Your task to perform on an android device: turn off notifications in google photos Image 0: 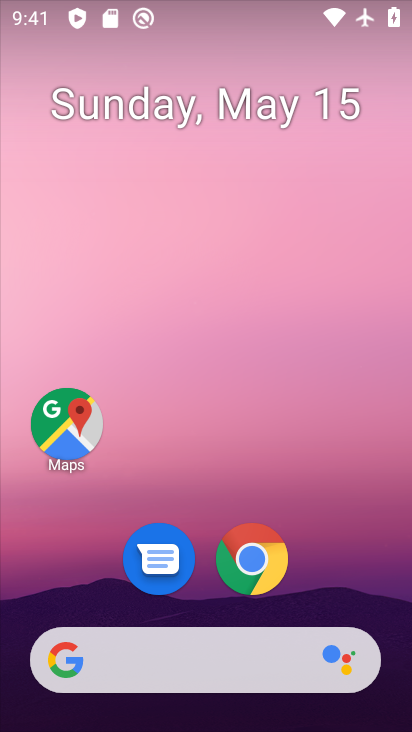
Step 0: drag from (209, 294) to (160, 96)
Your task to perform on an android device: turn off notifications in google photos Image 1: 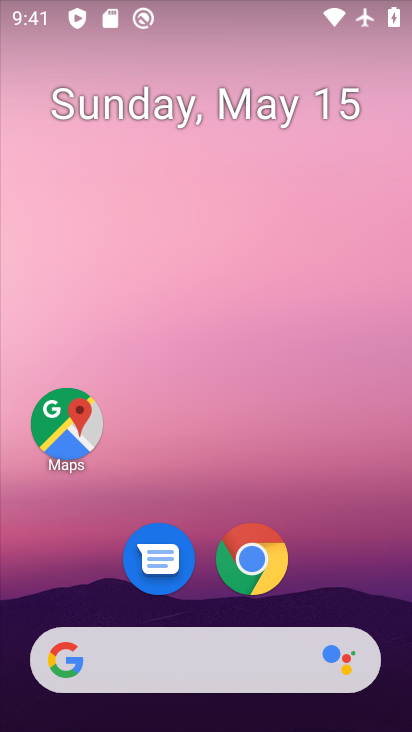
Step 1: drag from (320, 541) to (149, 0)
Your task to perform on an android device: turn off notifications in google photos Image 2: 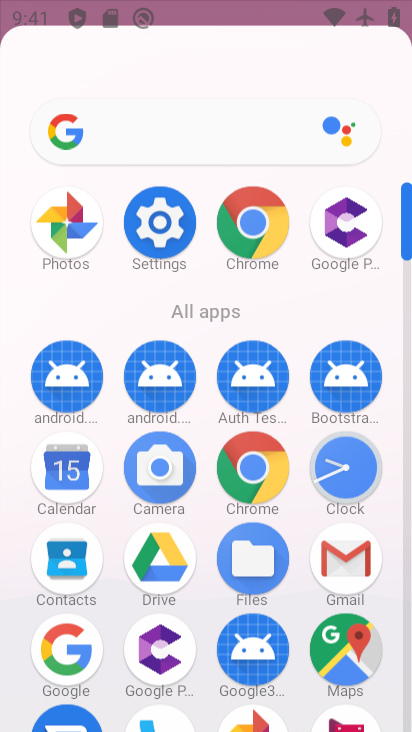
Step 2: drag from (327, 593) to (221, 0)
Your task to perform on an android device: turn off notifications in google photos Image 3: 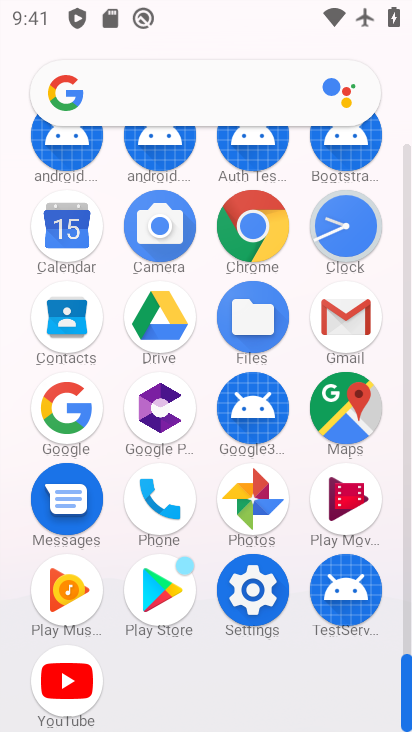
Step 3: click (256, 488)
Your task to perform on an android device: turn off notifications in google photos Image 4: 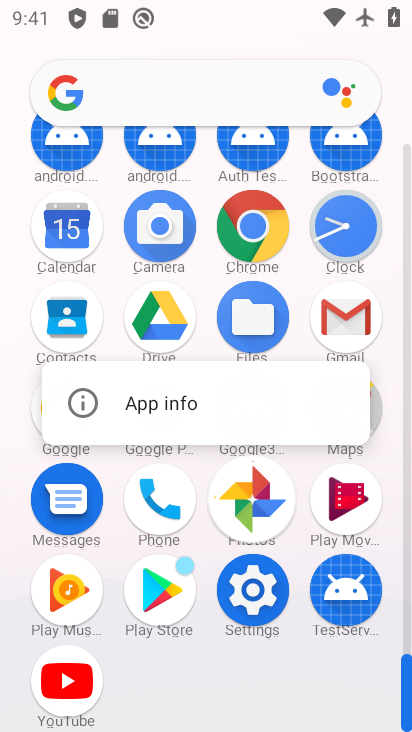
Step 4: click (250, 494)
Your task to perform on an android device: turn off notifications in google photos Image 5: 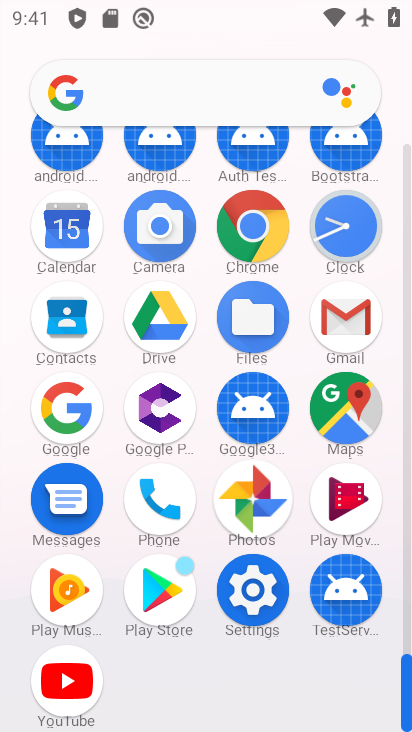
Step 5: click (251, 496)
Your task to perform on an android device: turn off notifications in google photos Image 6: 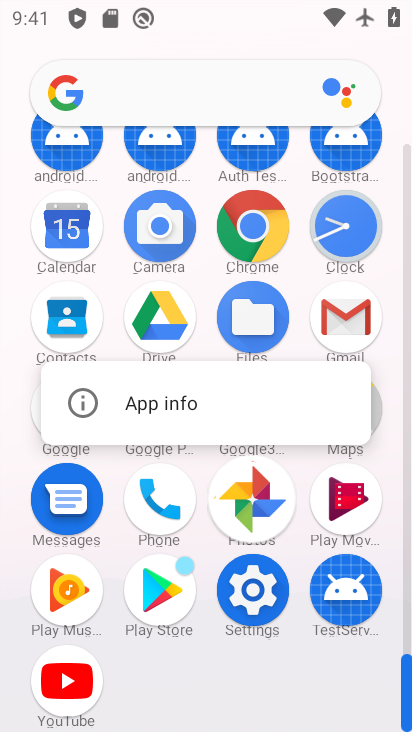
Step 6: click (251, 496)
Your task to perform on an android device: turn off notifications in google photos Image 7: 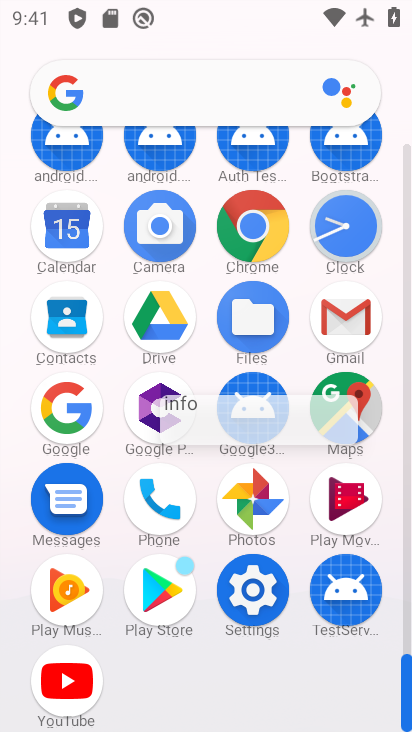
Step 7: click (252, 495)
Your task to perform on an android device: turn off notifications in google photos Image 8: 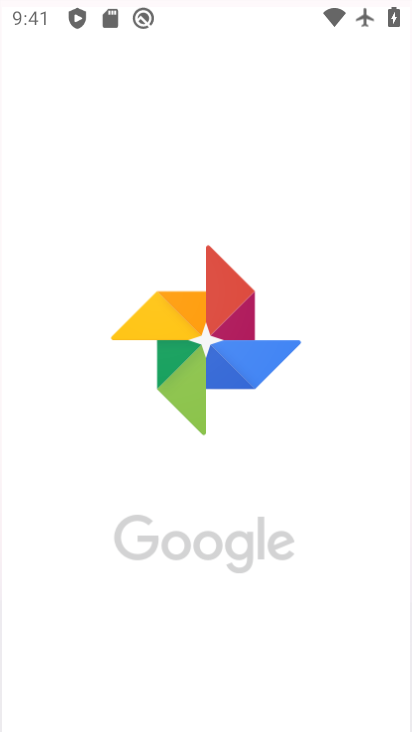
Step 8: click (252, 495)
Your task to perform on an android device: turn off notifications in google photos Image 9: 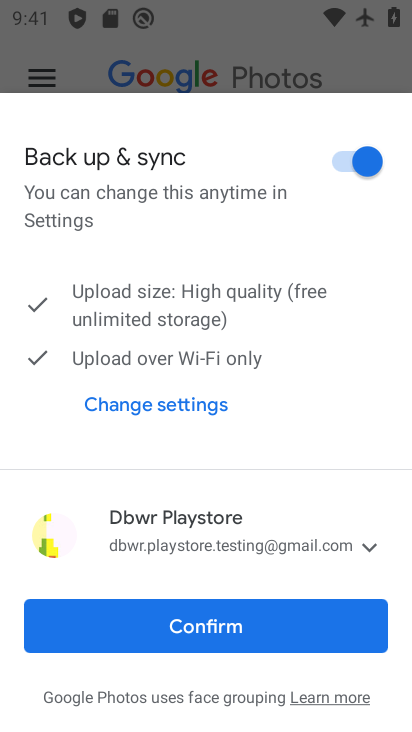
Step 9: click (211, 632)
Your task to perform on an android device: turn off notifications in google photos Image 10: 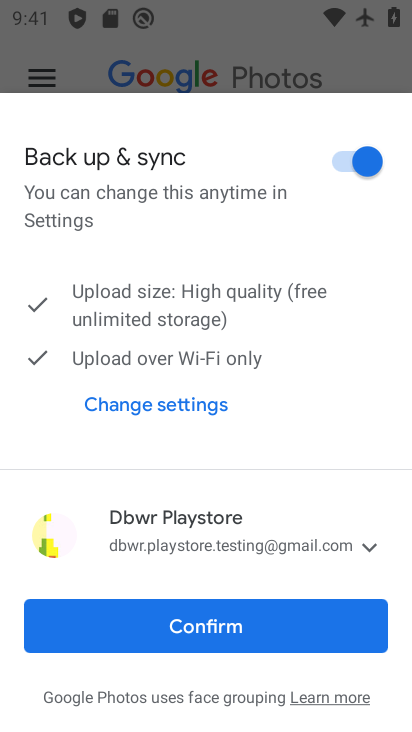
Step 10: click (203, 636)
Your task to perform on an android device: turn off notifications in google photos Image 11: 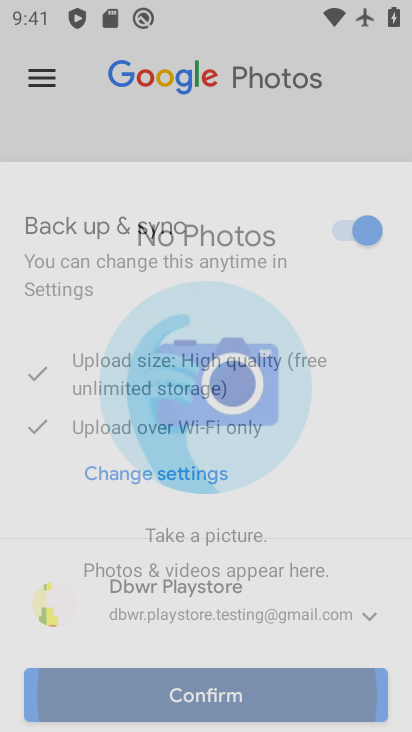
Step 11: click (207, 635)
Your task to perform on an android device: turn off notifications in google photos Image 12: 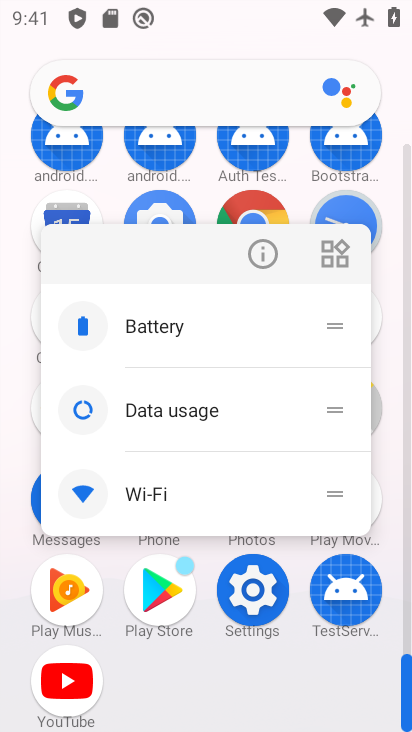
Step 12: click (397, 358)
Your task to perform on an android device: turn off notifications in google photos Image 13: 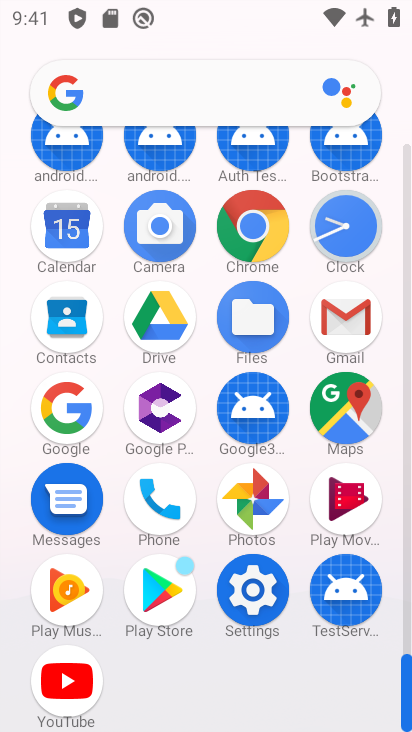
Step 13: click (395, 357)
Your task to perform on an android device: turn off notifications in google photos Image 14: 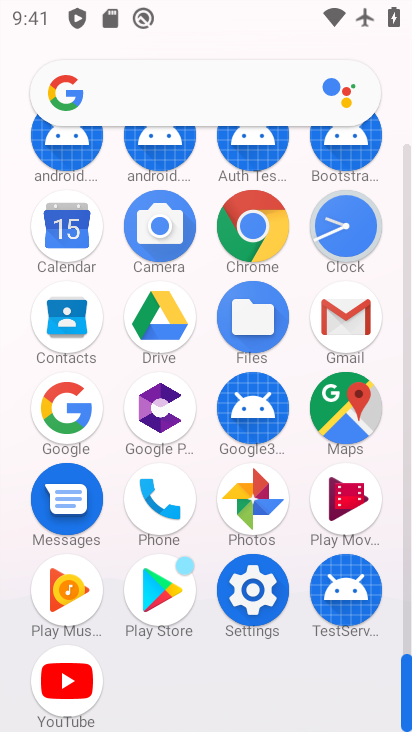
Step 14: click (396, 356)
Your task to perform on an android device: turn off notifications in google photos Image 15: 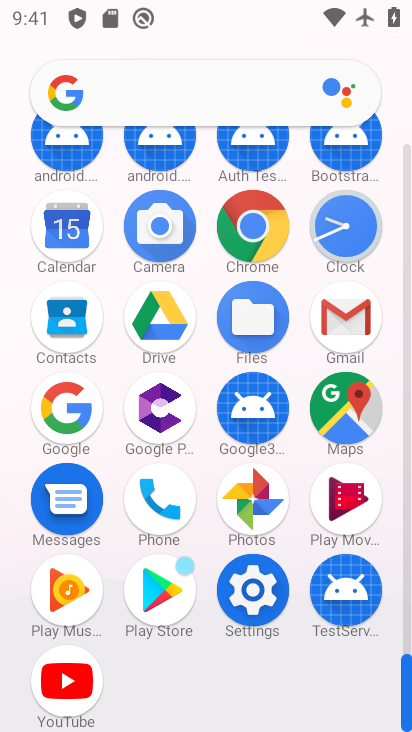
Step 15: click (233, 481)
Your task to perform on an android device: turn off notifications in google photos Image 16: 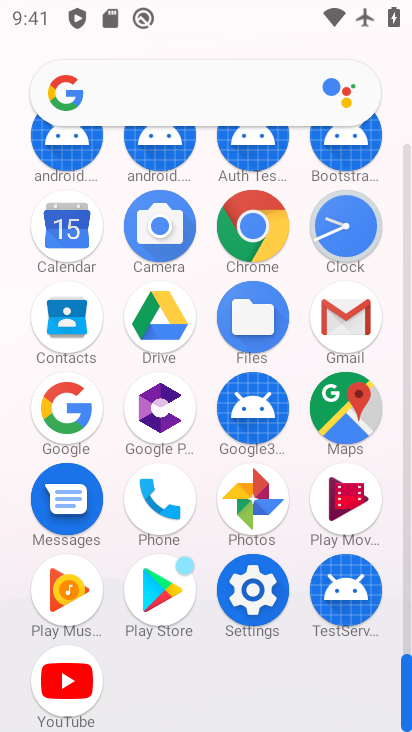
Step 16: click (242, 502)
Your task to perform on an android device: turn off notifications in google photos Image 17: 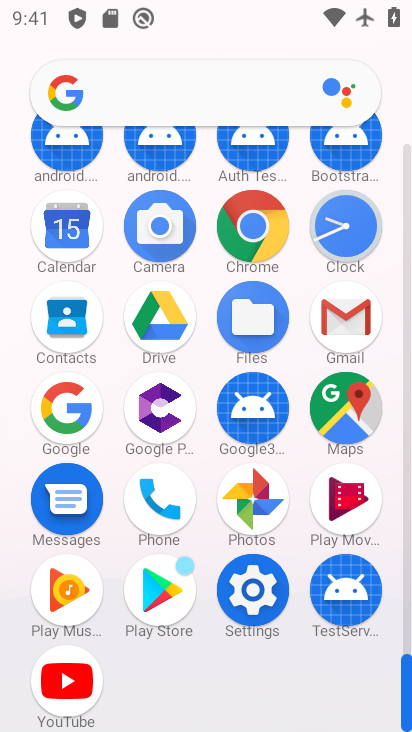
Step 17: click (243, 502)
Your task to perform on an android device: turn off notifications in google photos Image 18: 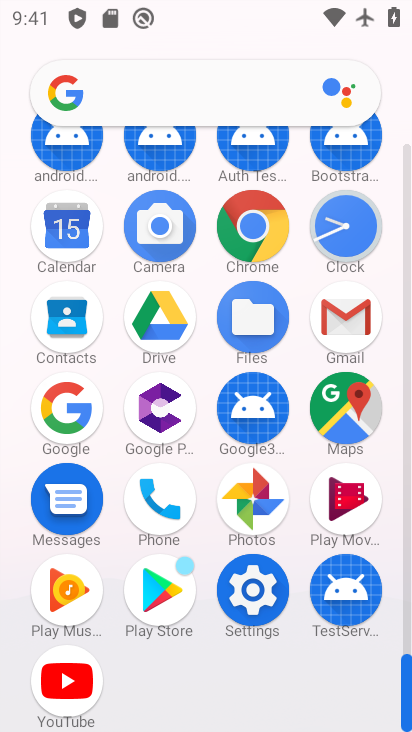
Step 18: click (258, 502)
Your task to perform on an android device: turn off notifications in google photos Image 19: 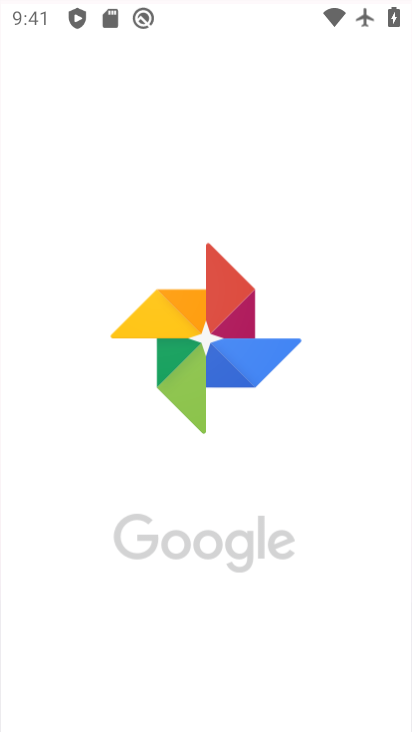
Step 19: click (260, 501)
Your task to perform on an android device: turn off notifications in google photos Image 20: 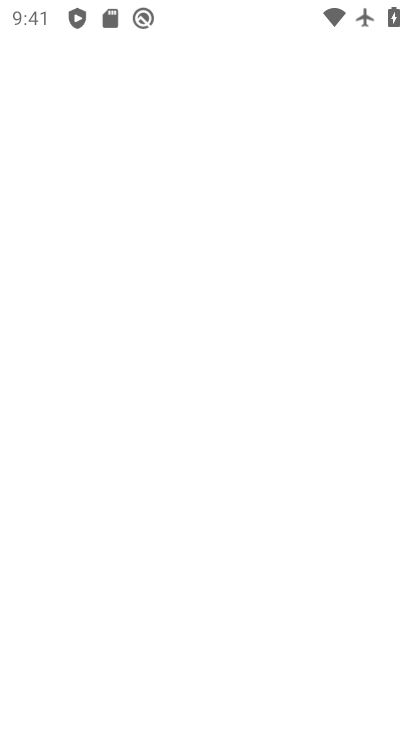
Step 20: click (260, 501)
Your task to perform on an android device: turn off notifications in google photos Image 21: 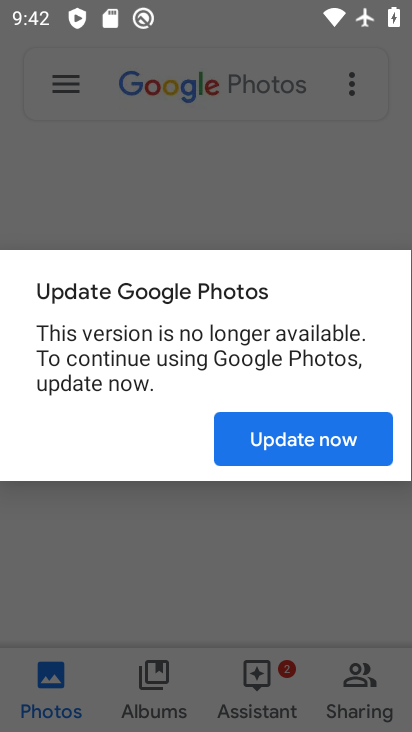
Step 21: click (300, 448)
Your task to perform on an android device: turn off notifications in google photos Image 22: 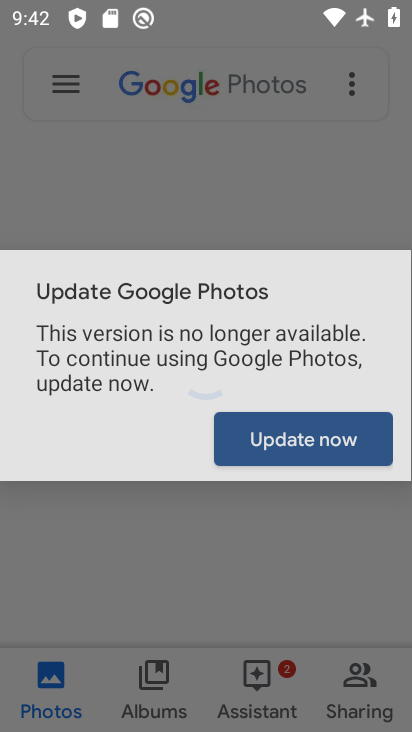
Step 22: click (324, 411)
Your task to perform on an android device: turn off notifications in google photos Image 23: 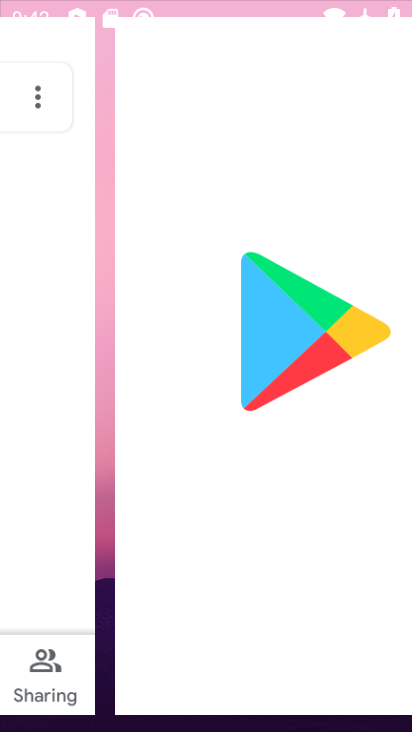
Step 23: click (324, 411)
Your task to perform on an android device: turn off notifications in google photos Image 24: 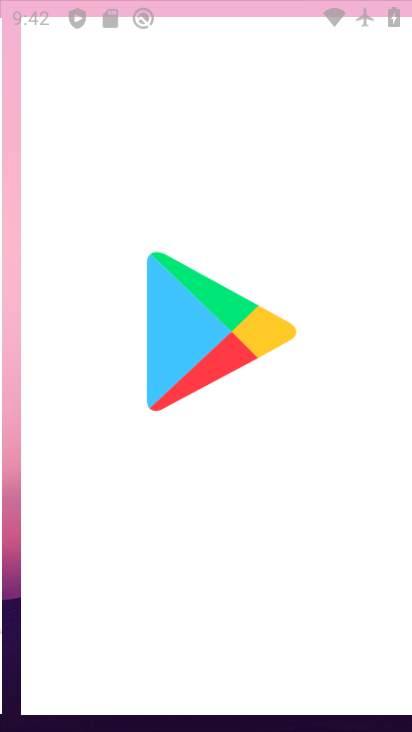
Step 24: click (325, 413)
Your task to perform on an android device: turn off notifications in google photos Image 25: 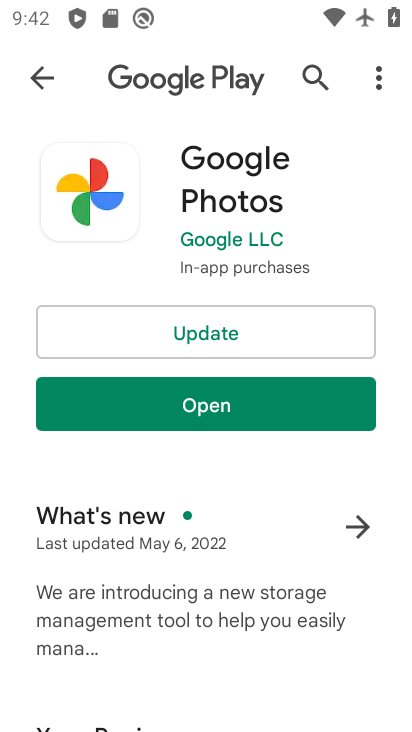
Step 25: click (195, 340)
Your task to perform on an android device: turn off notifications in google photos Image 26: 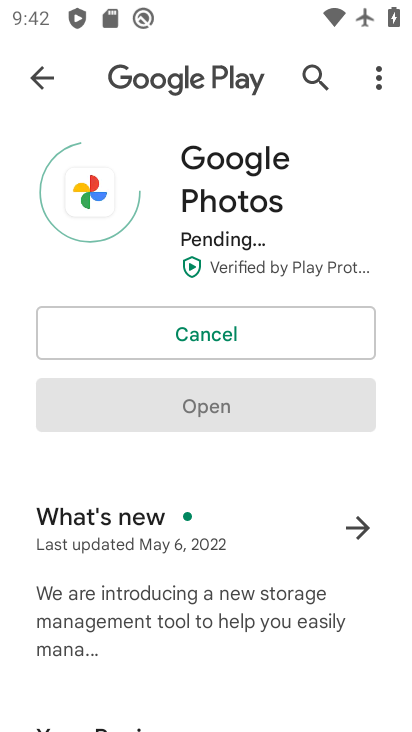
Step 26: click (195, 338)
Your task to perform on an android device: turn off notifications in google photos Image 27: 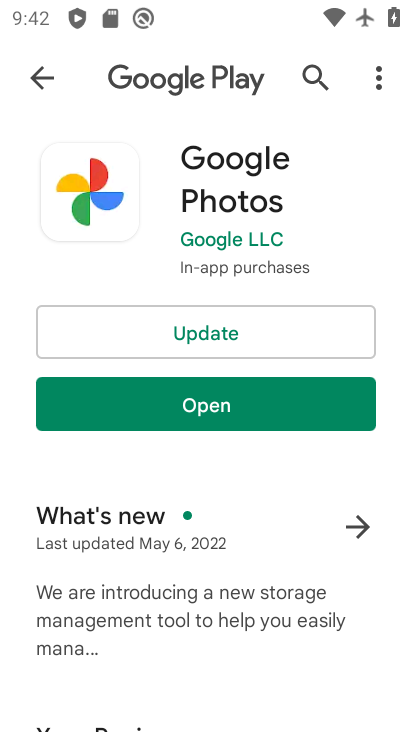
Step 27: click (205, 412)
Your task to perform on an android device: turn off notifications in google photos Image 28: 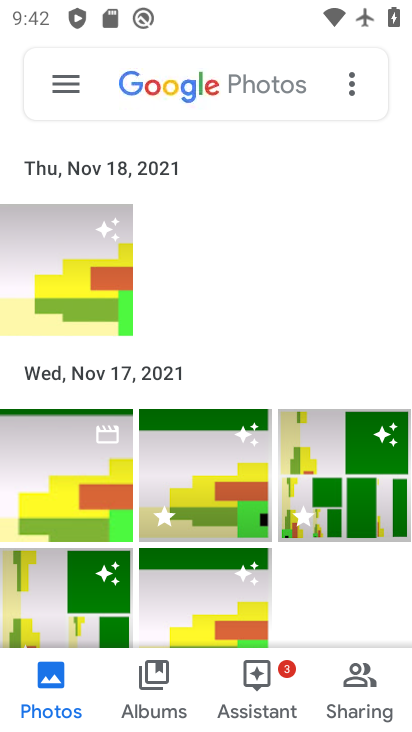
Step 28: click (59, 85)
Your task to perform on an android device: turn off notifications in google photos Image 29: 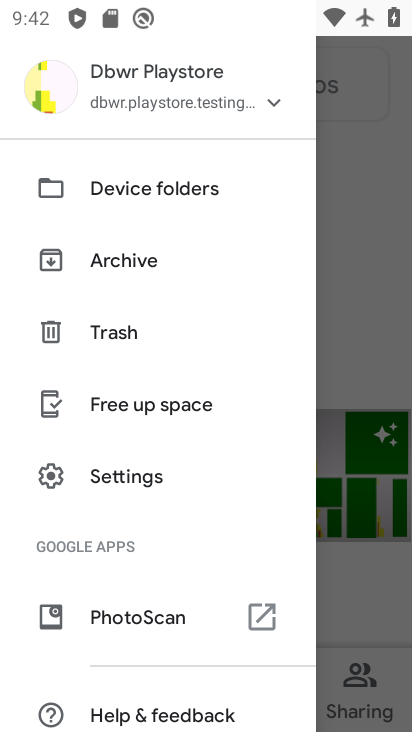
Step 29: drag from (169, 693) to (120, 100)
Your task to perform on an android device: turn off notifications in google photos Image 30: 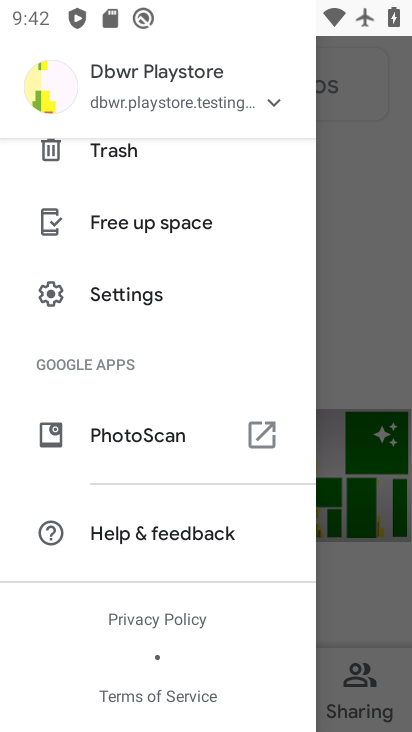
Step 30: click (104, 43)
Your task to perform on an android device: turn off notifications in google photos Image 31: 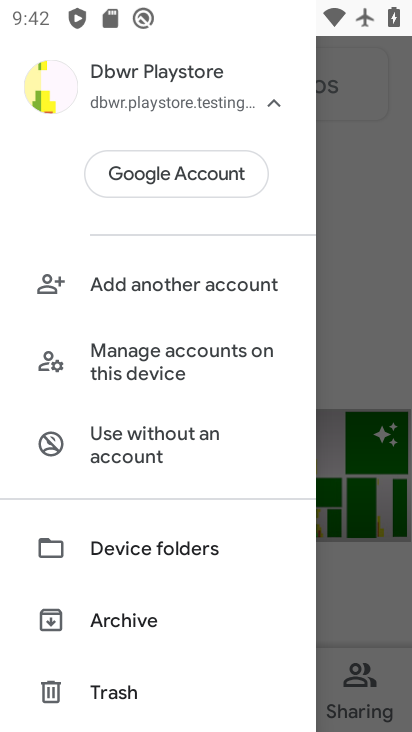
Step 31: click (126, 291)
Your task to perform on an android device: turn off notifications in google photos Image 32: 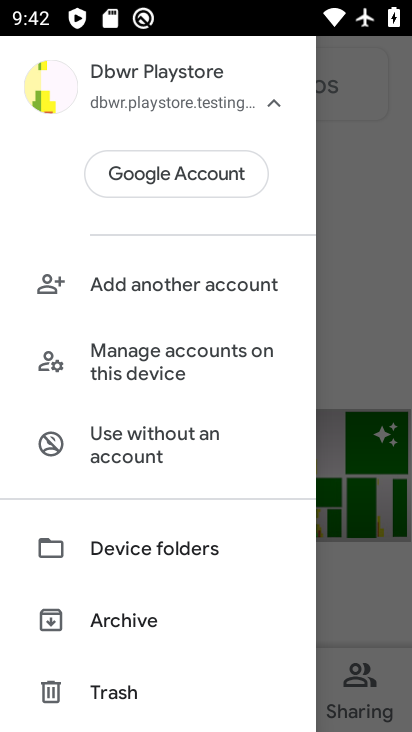
Step 32: click (103, 1)
Your task to perform on an android device: turn off notifications in google photos Image 33: 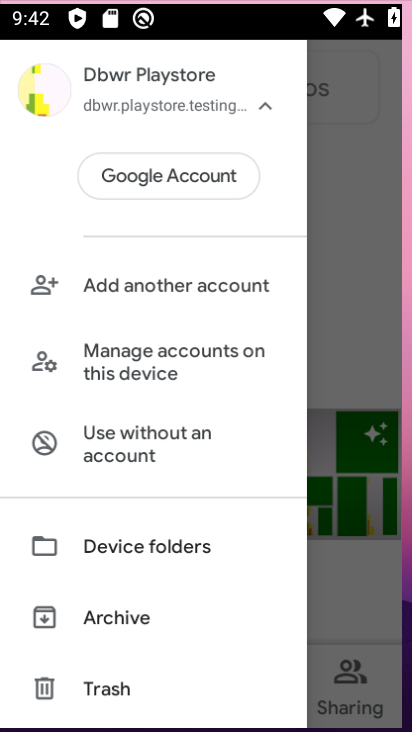
Step 33: drag from (123, 325) to (136, 117)
Your task to perform on an android device: turn off notifications in google photos Image 34: 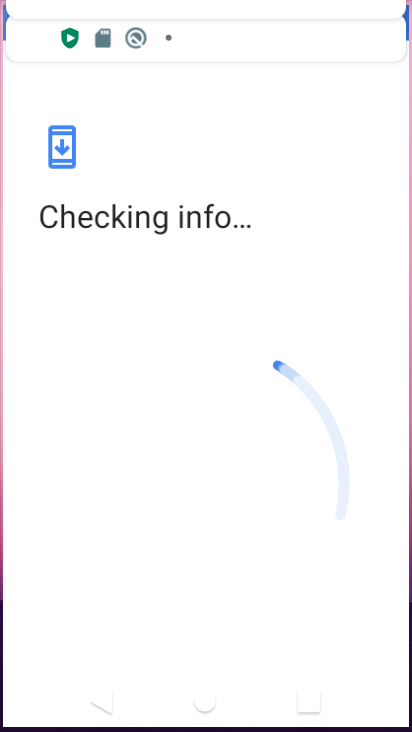
Step 34: click (149, 61)
Your task to perform on an android device: turn off notifications in google photos Image 35: 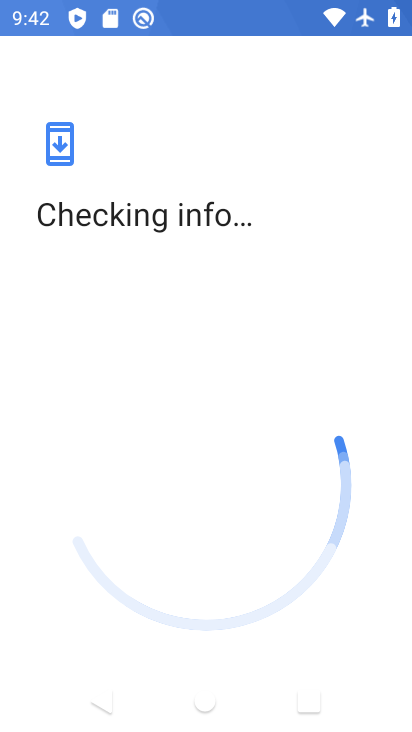
Step 35: drag from (235, 130) to (104, 371)
Your task to perform on an android device: turn off notifications in google photos Image 36: 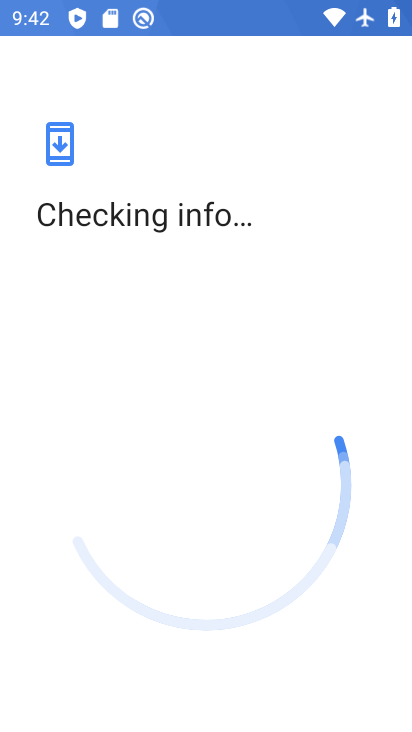
Step 36: drag from (142, 365) to (72, 8)
Your task to perform on an android device: turn off notifications in google photos Image 37: 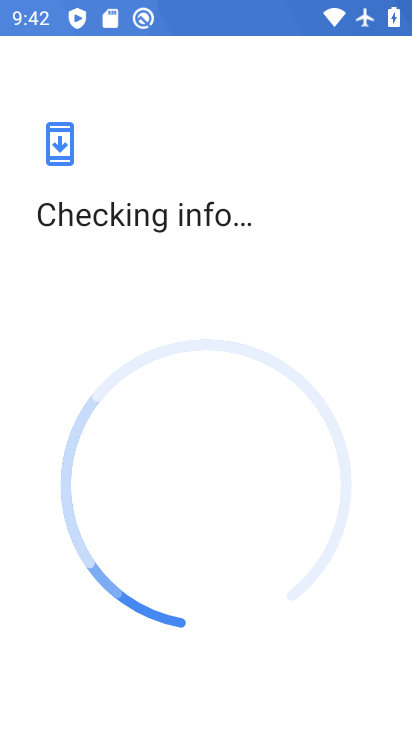
Step 37: press back button
Your task to perform on an android device: turn off notifications in google photos Image 38: 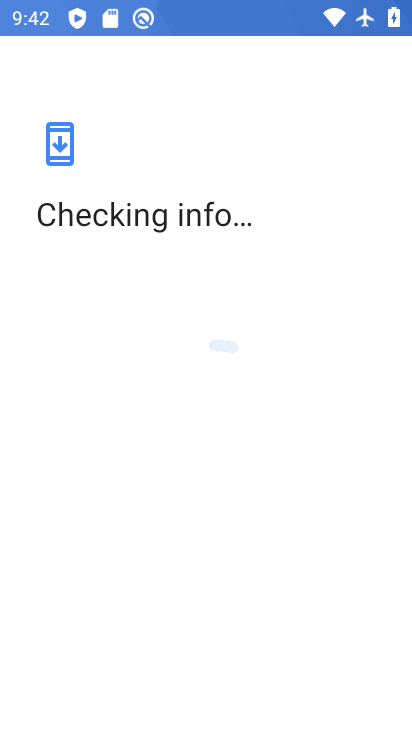
Step 38: press back button
Your task to perform on an android device: turn off notifications in google photos Image 39: 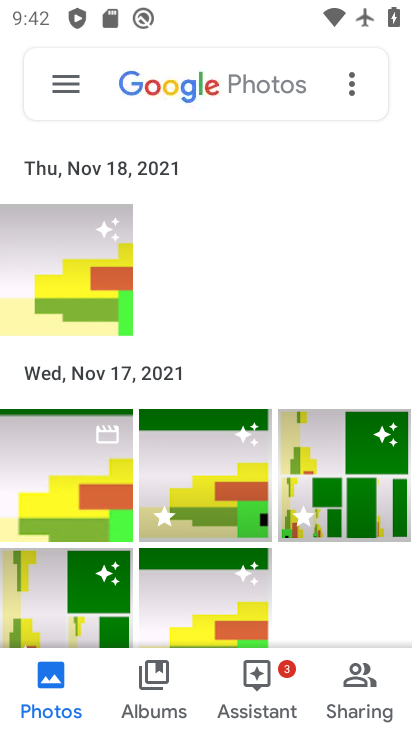
Step 39: drag from (181, 506) to (13, 124)
Your task to perform on an android device: turn off notifications in google photos Image 40: 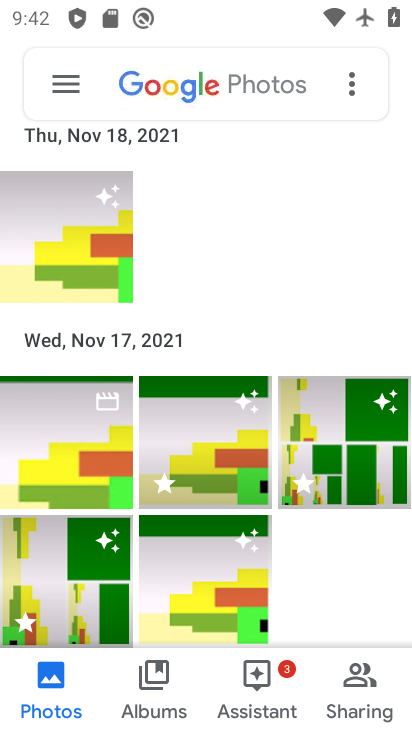
Step 40: drag from (167, 486) to (117, 258)
Your task to perform on an android device: turn off notifications in google photos Image 41: 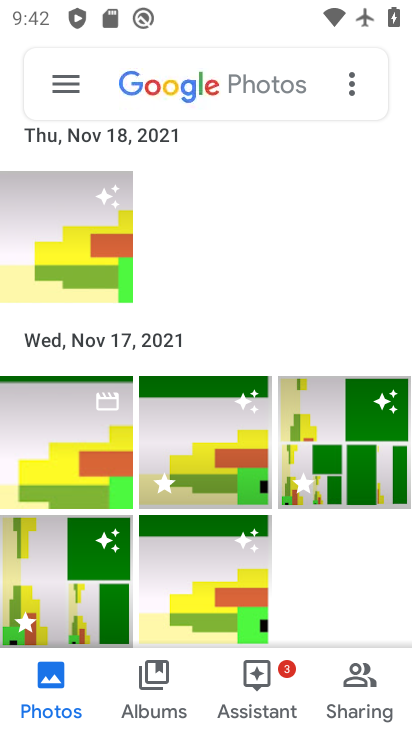
Step 41: click (58, 86)
Your task to perform on an android device: turn off notifications in google photos Image 42: 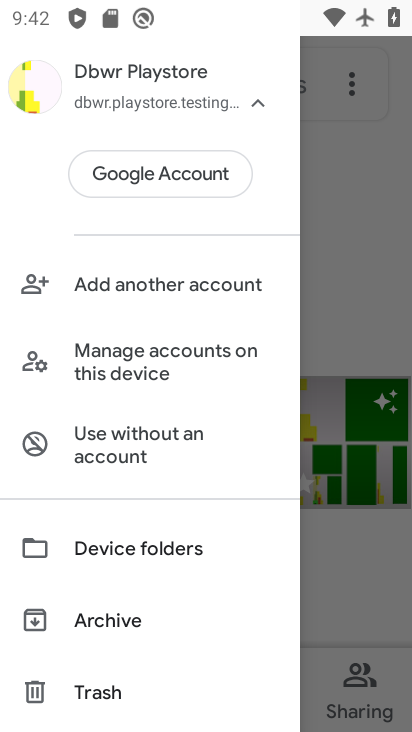
Step 42: click (65, 82)
Your task to perform on an android device: turn off notifications in google photos Image 43: 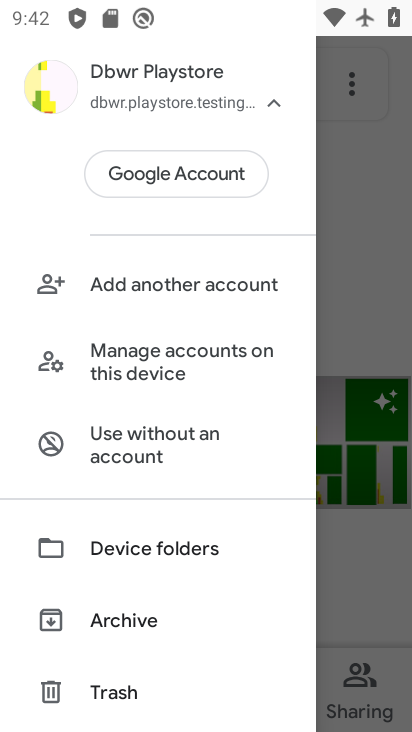
Step 43: click (65, 82)
Your task to perform on an android device: turn off notifications in google photos Image 44: 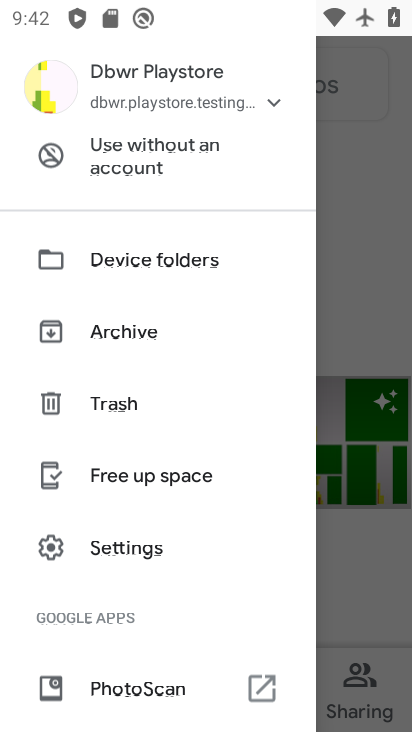
Step 44: click (65, 82)
Your task to perform on an android device: turn off notifications in google photos Image 45: 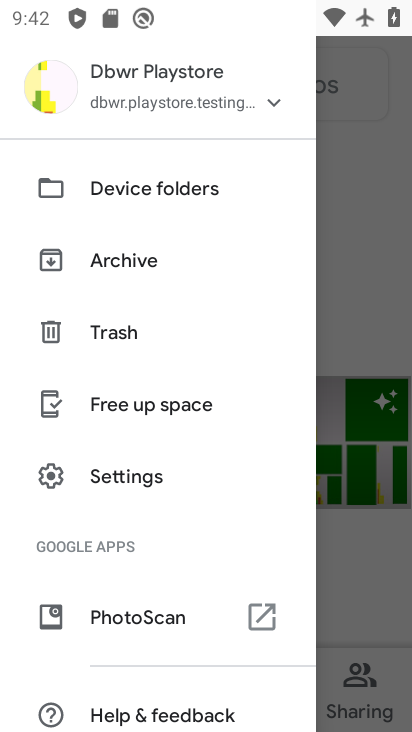
Step 45: click (114, 471)
Your task to perform on an android device: turn off notifications in google photos Image 46: 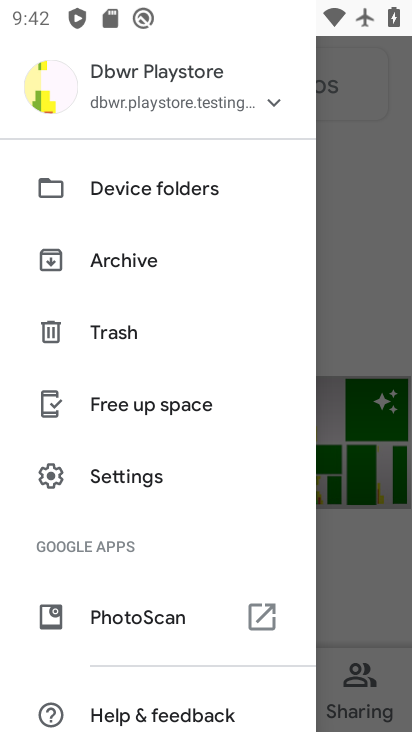
Step 46: click (114, 471)
Your task to perform on an android device: turn off notifications in google photos Image 47: 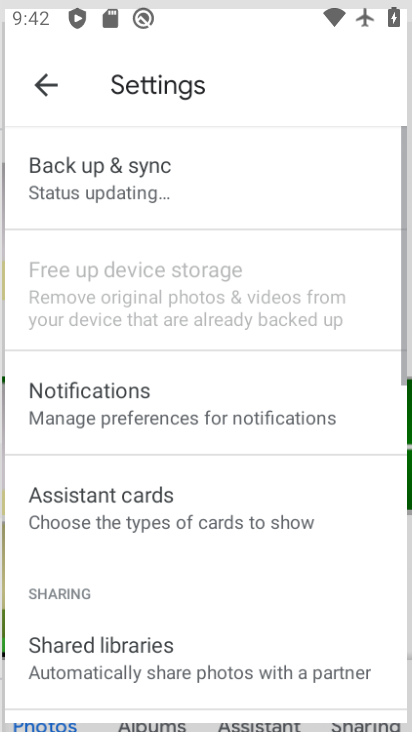
Step 47: click (114, 471)
Your task to perform on an android device: turn off notifications in google photos Image 48: 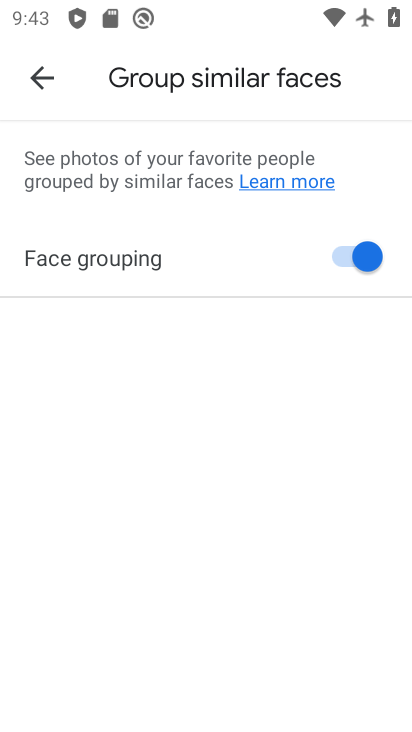
Step 48: click (41, 76)
Your task to perform on an android device: turn off notifications in google photos Image 49: 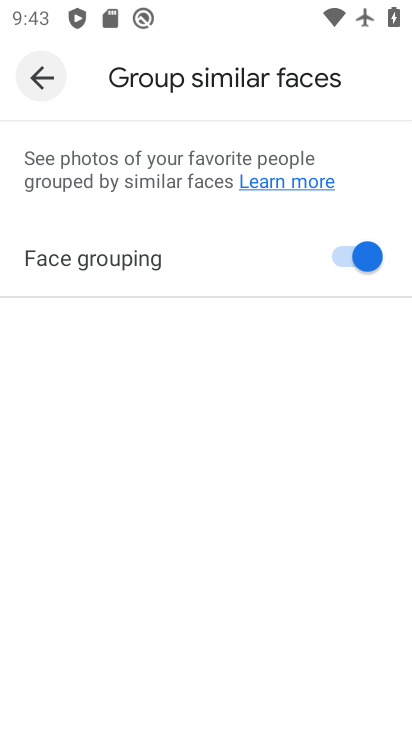
Step 49: click (41, 76)
Your task to perform on an android device: turn off notifications in google photos Image 50: 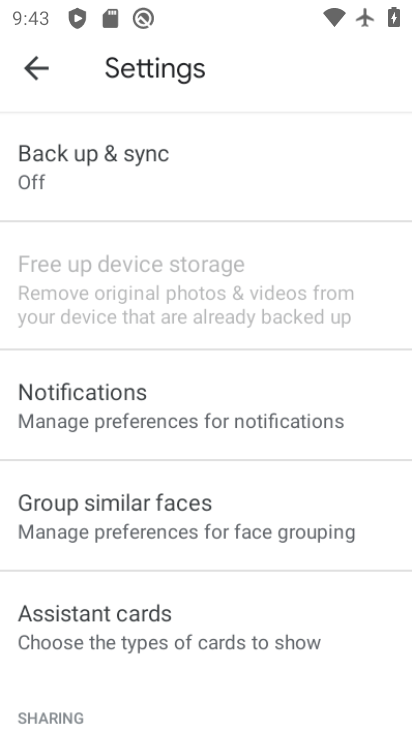
Step 50: click (41, 76)
Your task to perform on an android device: turn off notifications in google photos Image 51: 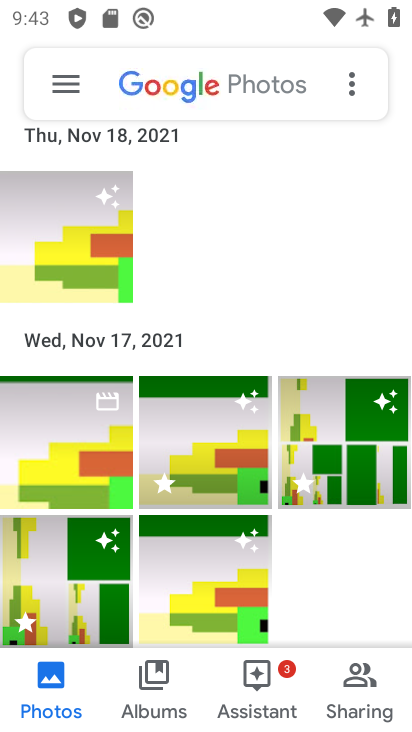
Step 51: click (68, 93)
Your task to perform on an android device: turn off notifications in google photos Image 52: 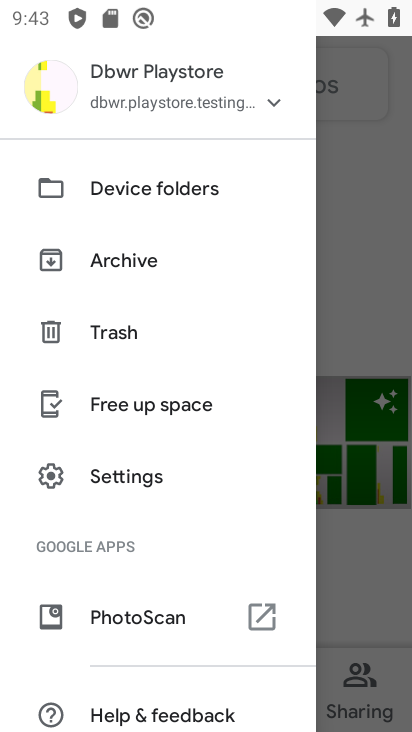
Step 52: click (110, 478)
Your task to perform on an android device: turn off notifications in google photos Image 53: 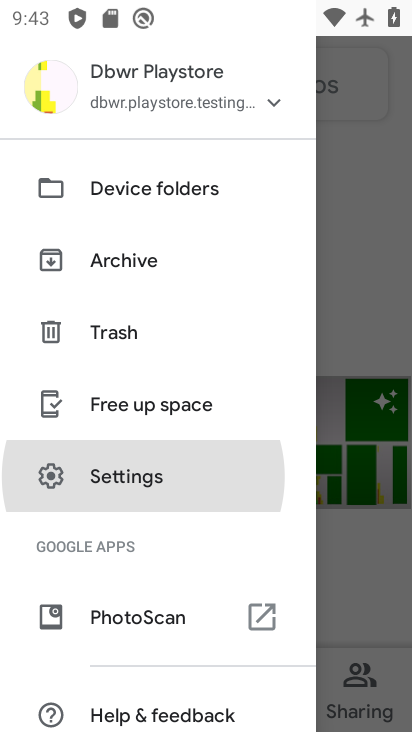
Step 53: click (108, 475)
Your task to perform on an android device: turn off notifications in google photos Image 54: 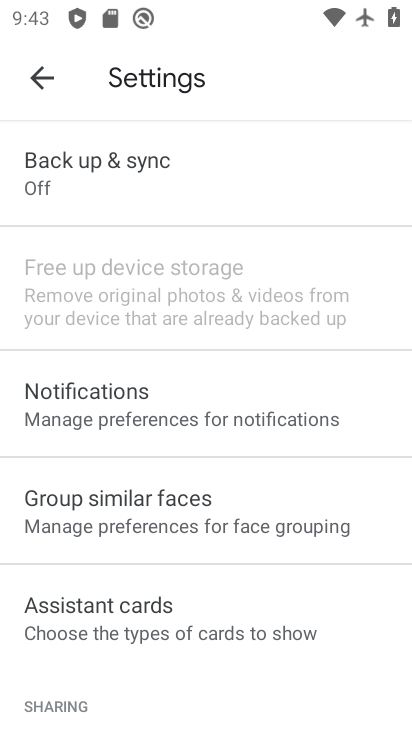
Step 54: click (83, 400)
Your task to perform on an android device: turn off notifications in google photos Image 55: 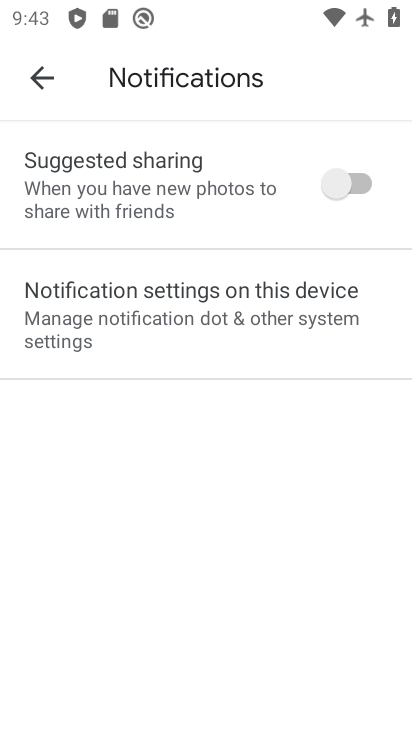
Step 55: click (117, 399)
Your task to perform on an android device: turn off notifications in google photos Image 56: 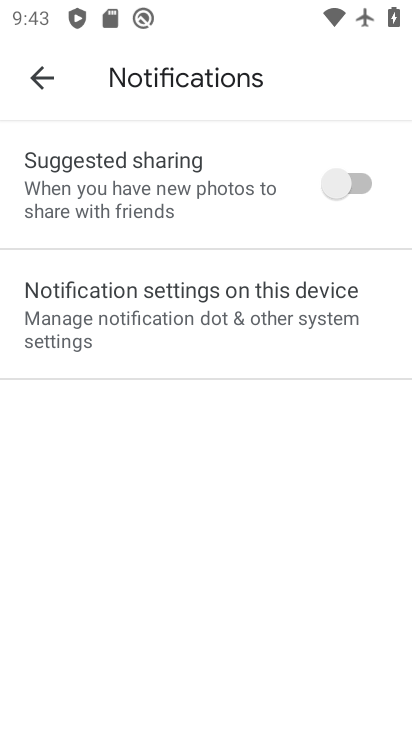
Step 56: click (137, 319)
Your task to perform on an android device: turn off notifications in google photos Image 57: 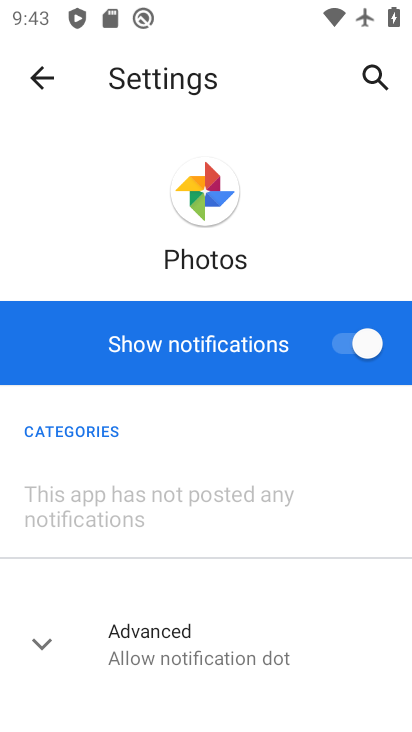
Step 57: click (352, 346)
Your task to perform on an android device: turn off notifications in google photos Image 58: 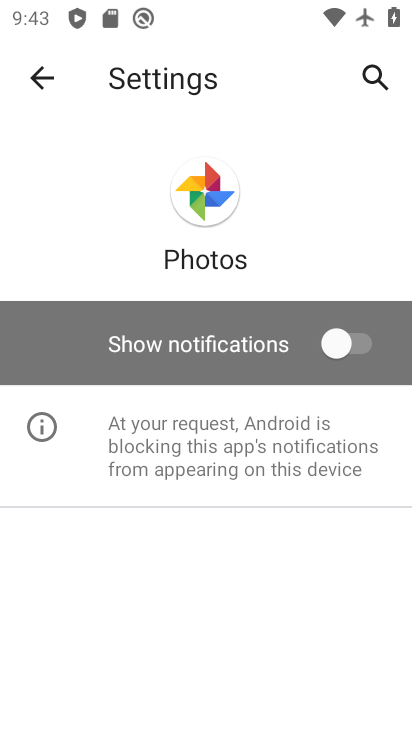
Step 58: task complete